Your task to perform on an android device: set the stopwatch Image 0: 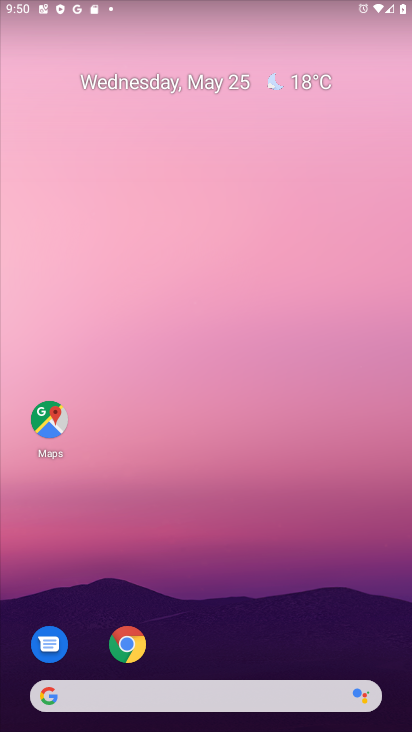
Step 0: drag from (221, 649) to (214, 71)
Your task to perform on an android device: set the stopwatch Image 1: 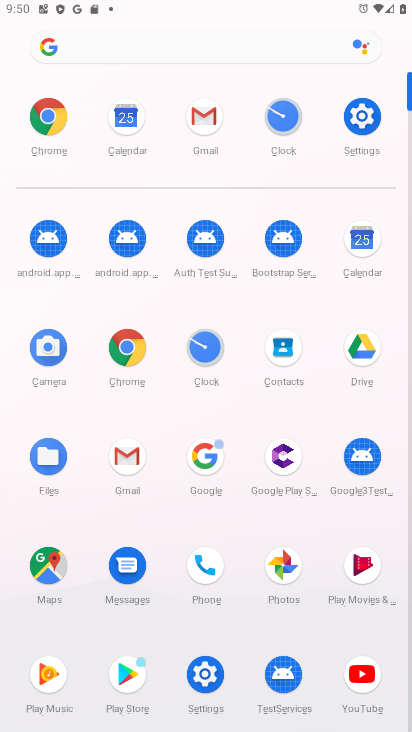
Step 1: click (276, 112)
Your task to perform on an android device: set the stopwatch Image 2: 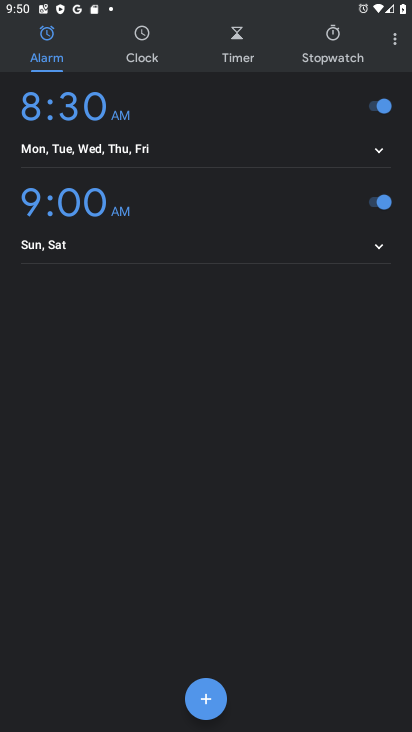
Step 2: click (334, 29)
Your task to perform on an android device: set the stopwatch Image 3: 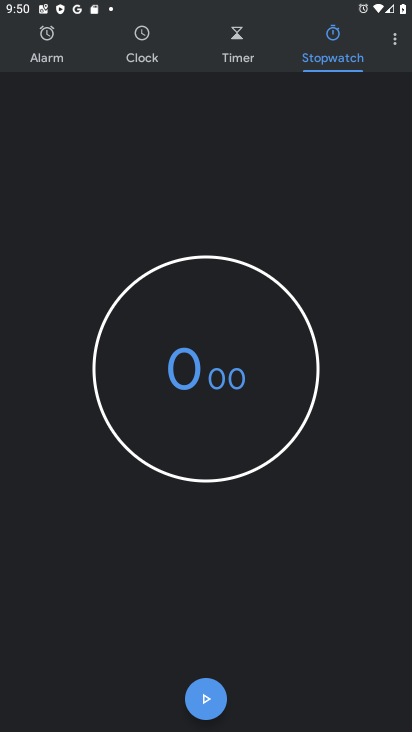
Step 3: click (202, 692)
Your task to perform on an android device: set the stopwatch Image 4: 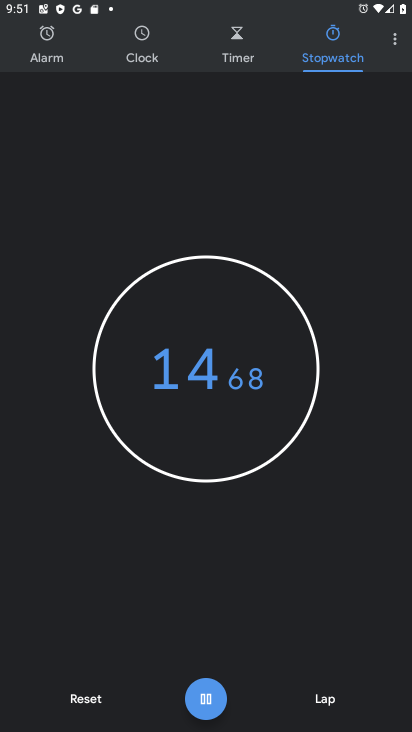
Step 4: click (87, 695)
Your task to perform on an android device: set the stopwatch Image 5: 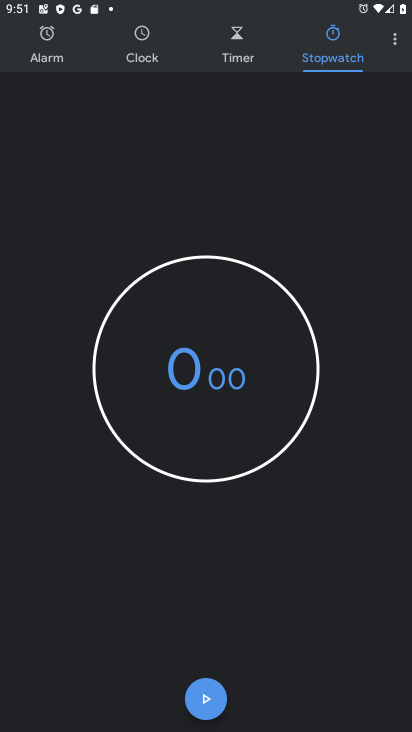
Step 5: task complete